Your task to perform on an android device: Open Google Maps Image 0: 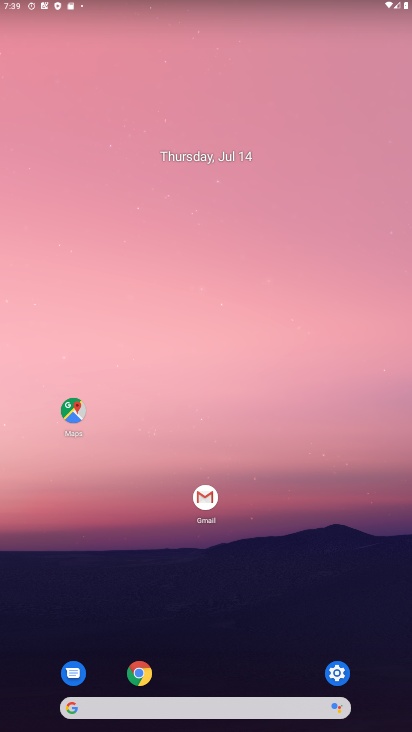
Step 0: click (75, 709)
Your task to perform on an android device: Open Google Maps Image 1: 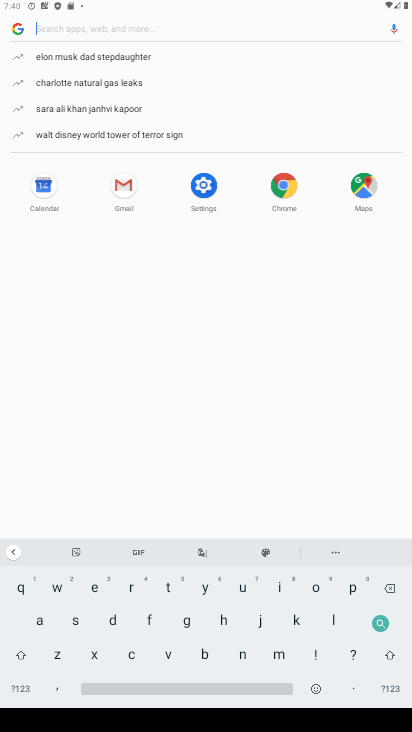
Step 1: click (370, 182)
Your task to perform on an android device: Open Google Maps Image 2: 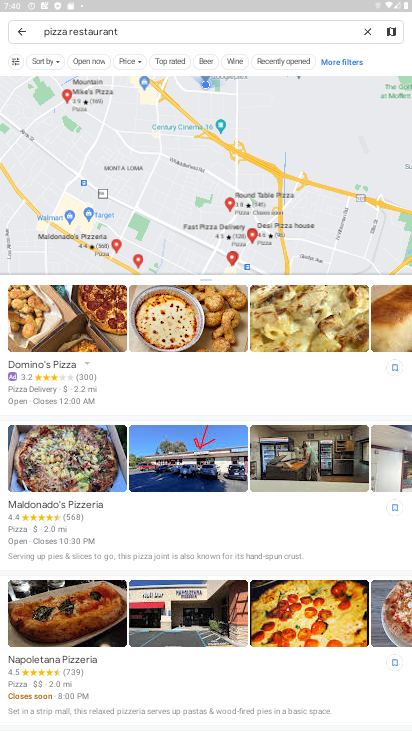
Step 2: click (23, 30)
Your task to perform on an android device: Open Google Maps Image 3: 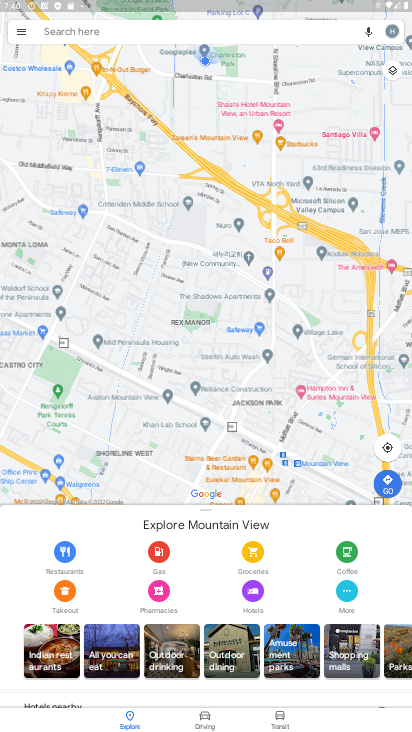
Step 3: task complete